Your task to perform on an android device: What's the weather going to be tomorrow? Image 0: 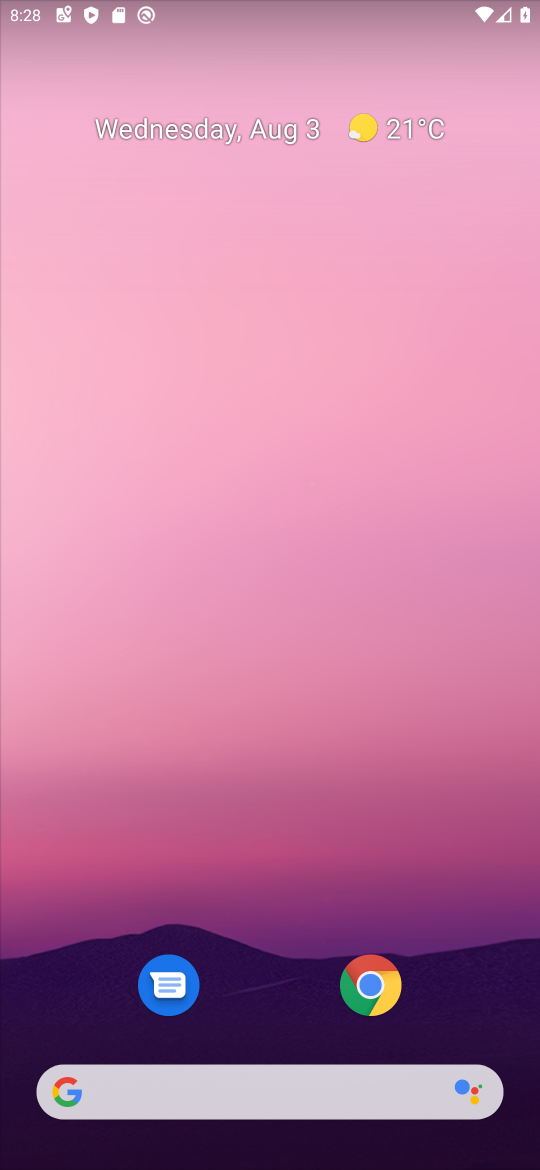
Step 0: drag from (259, 994) to (222, 394)
Your task to perform on an android device: What's the weather going to be tomorrow? Image 1: 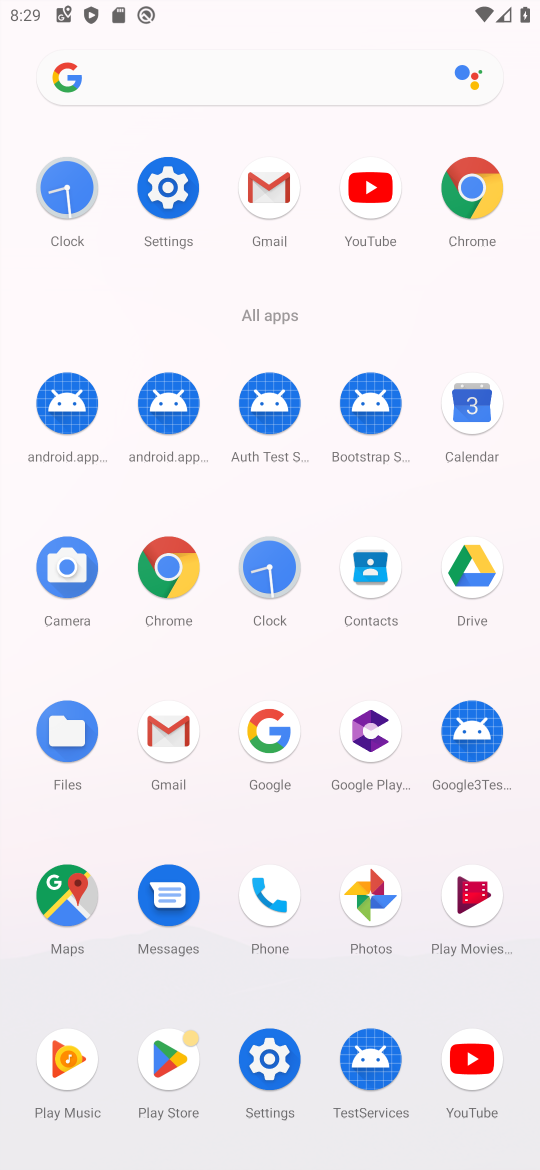
Step 1: click (245, 733)
Your task to perform on an android device: What's the weather going to be tomorrow? Image 2: 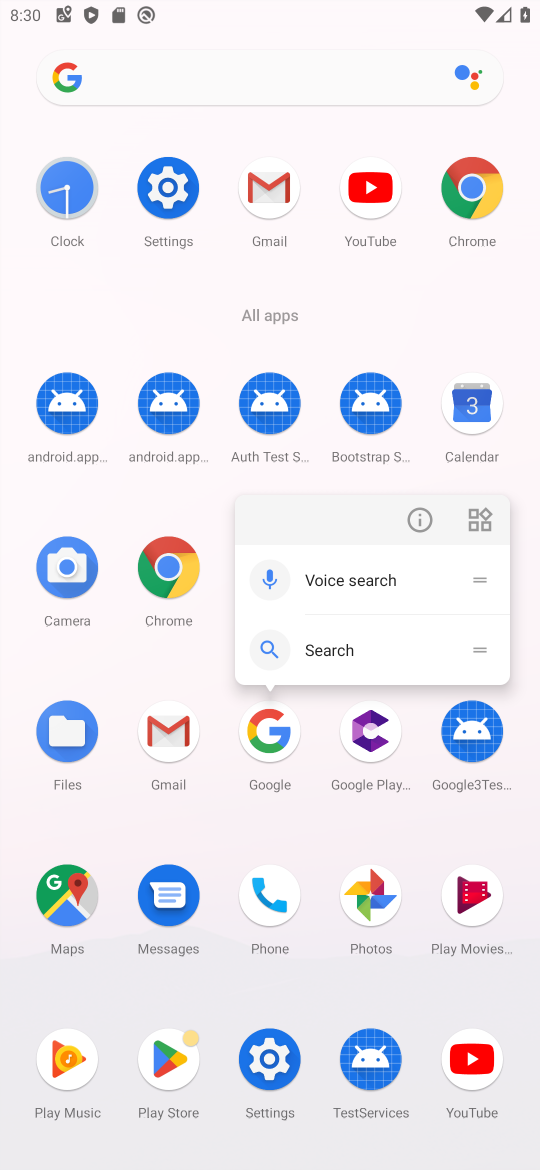
Step 2: click (248, 732)
Your task to perform on an android device: What's the weather going to be tomorrow? Image 3: 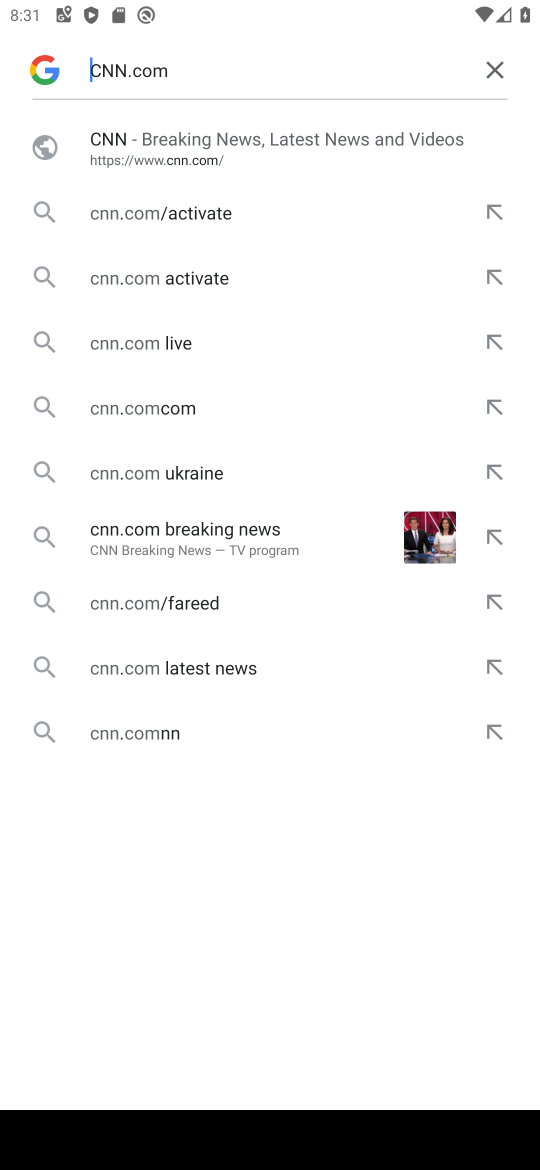
Step 3: click (487, 68)
Your task to perform on an android device: What's the weather going to be tomorrow? Image 4: 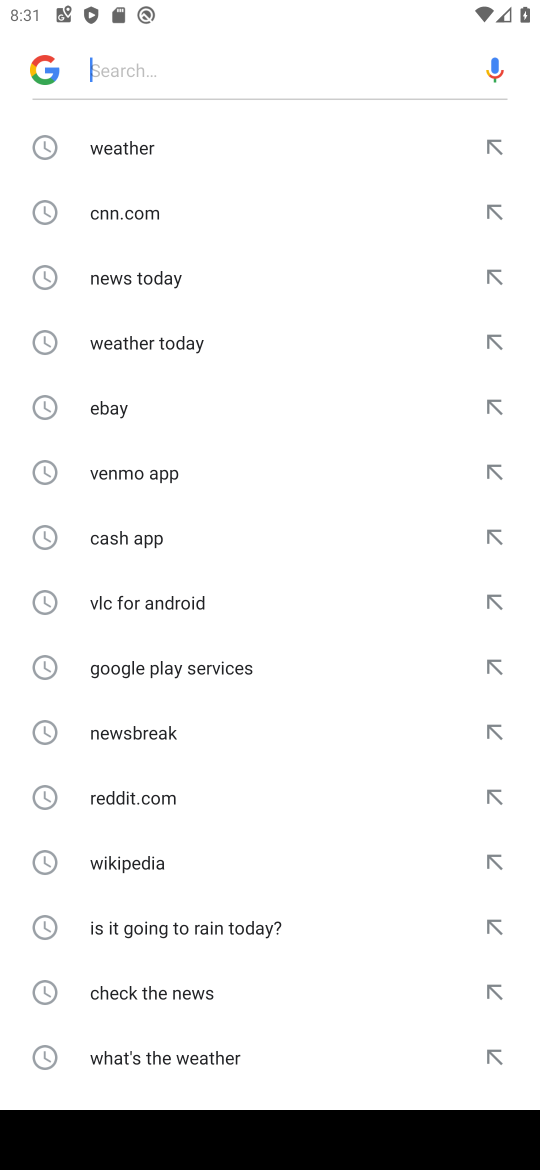
Step 4: click (209, 66)
Your task to perform on an android device: What's the weather going to be tomorrow? Image 5: 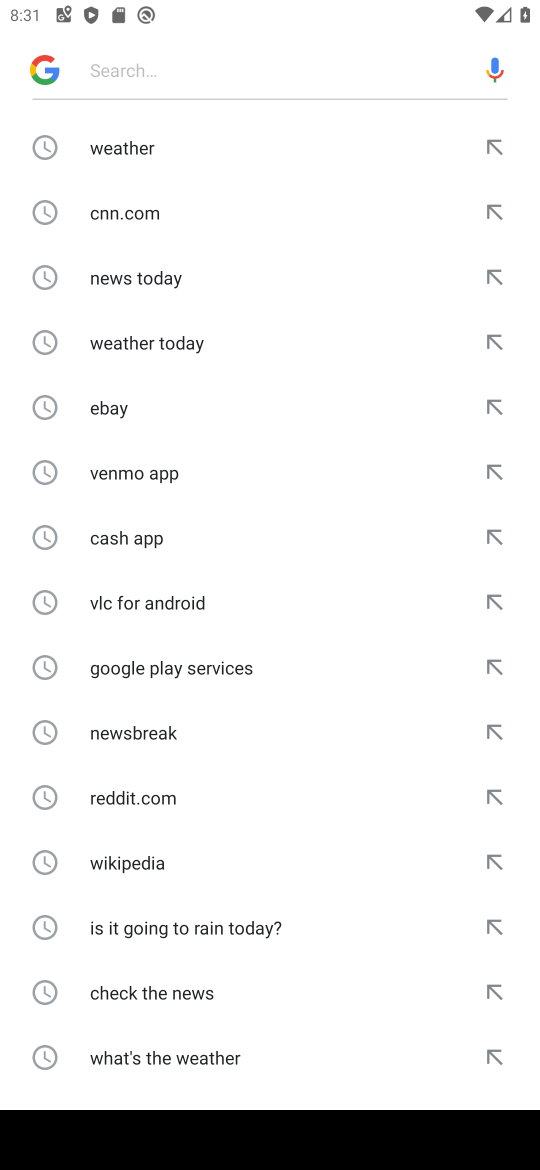
Step 5: click (171, 146)
Your task to perform on an android device: What's the weather going to be tomorrow? Image 6: 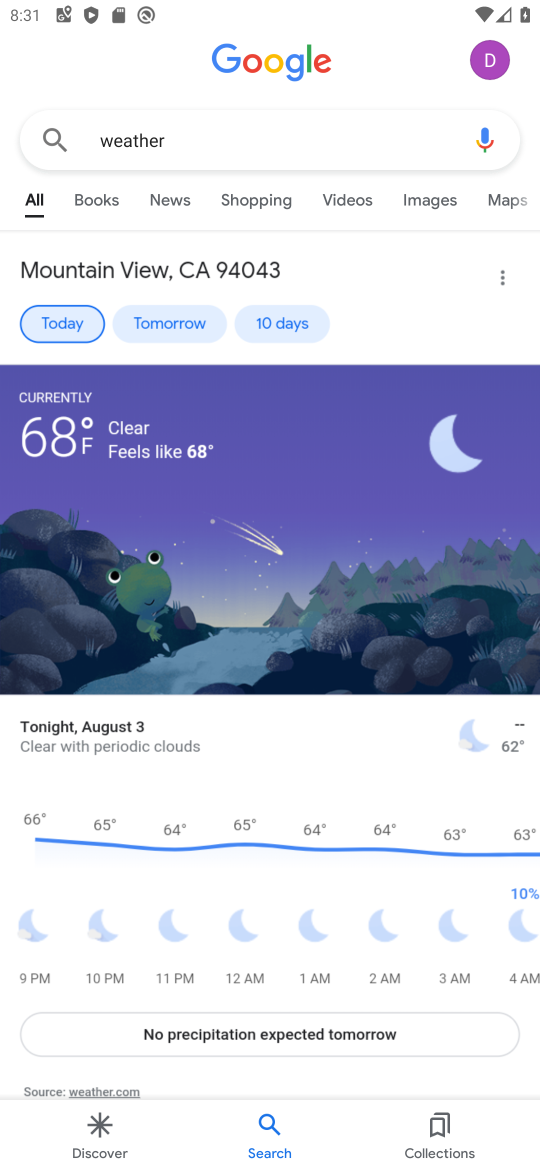
Step 6: click (162, 325)
Your task to perform on an android device: What's the weather going to be tomorrow? Image 7: 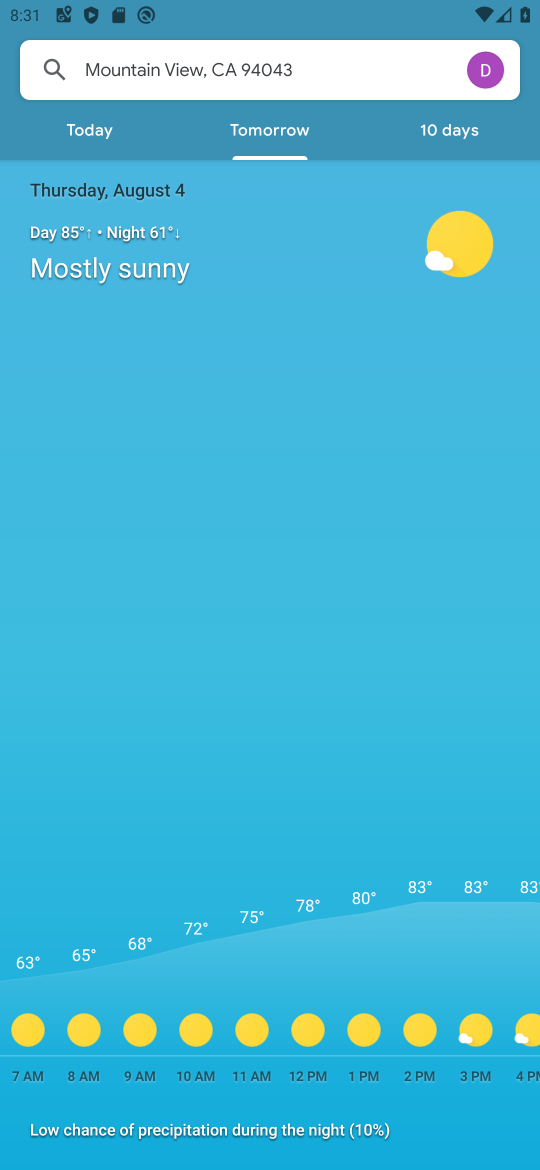
Step 7: task complete